Your task to perform on an android device: turn off picture-in-picture Image 0: 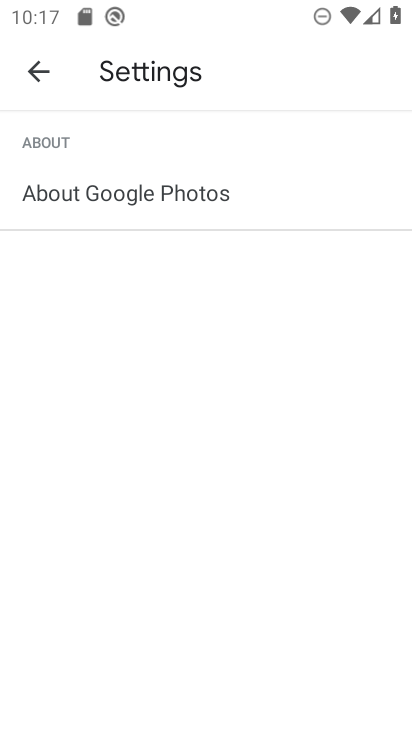
Step 0: press home button
Your task to perform on an android device: turn off picture-in-picture Image 1: 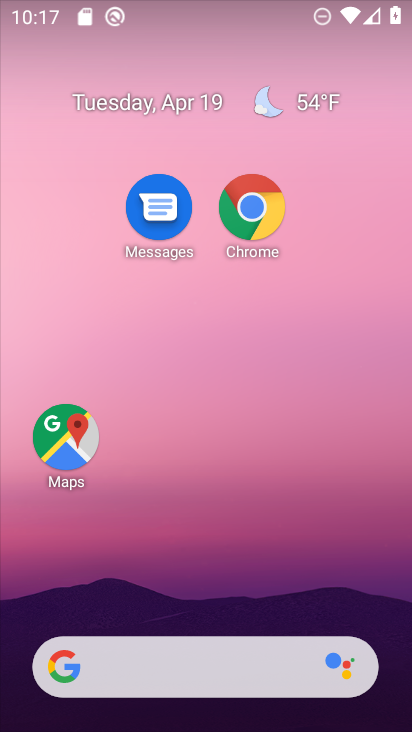
Step 1: click (242, 217)
Your task to perform on an android device: turn off picture-in-picture Image 2: 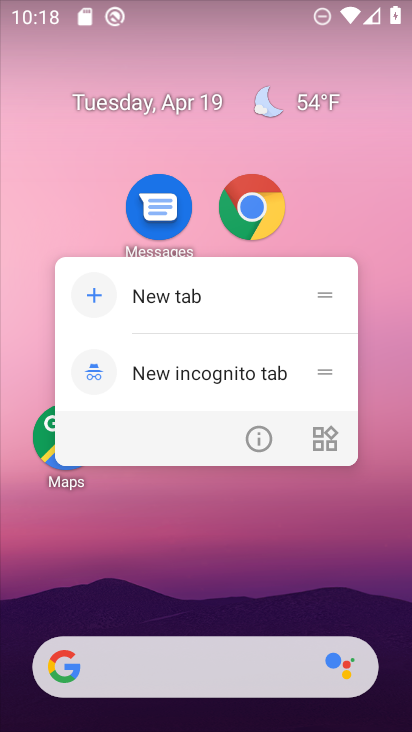
Step 2: click (259, 438)
Your task to perform on an android device: turn off picture-in-picture Image 3: 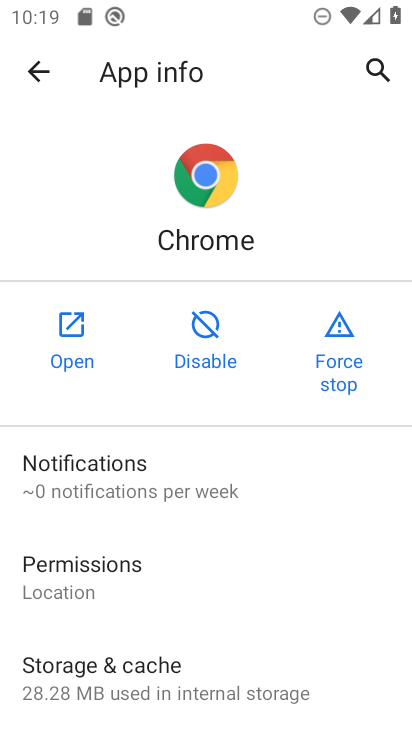
Step 3: drag from (198, 696) to (198, 383)
Your task to perform on an android device: turn off picture-in-picture Image 4: 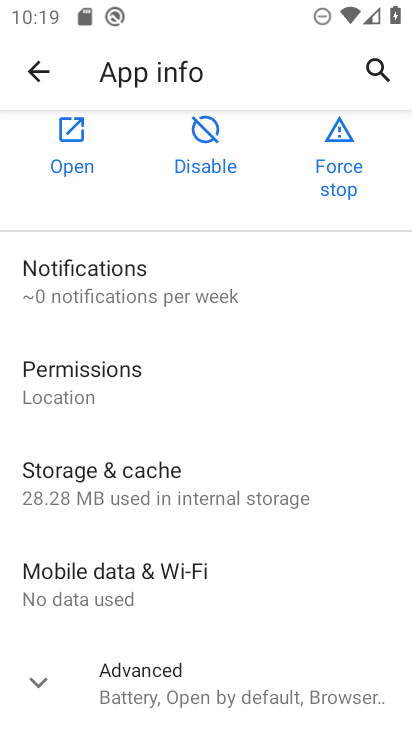
Step 4: click (173, 687)
Your task to perform on an android device: turn off picture-in-picture Image 5: 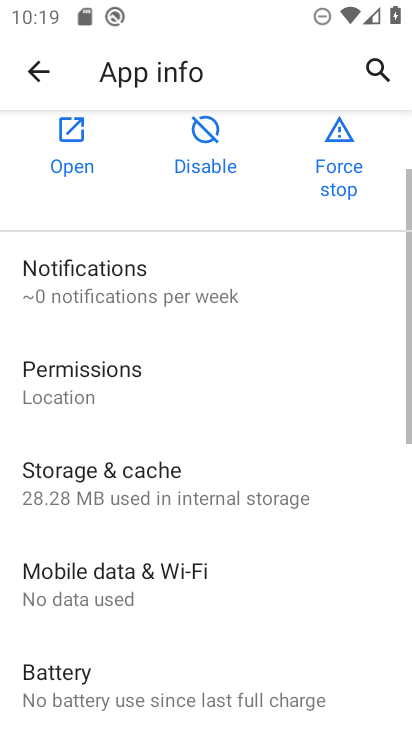
Step 5: drag from (213, 707) to (213, 370)
Your task to perform on an android device: turn off picture-in-picture Image 6: 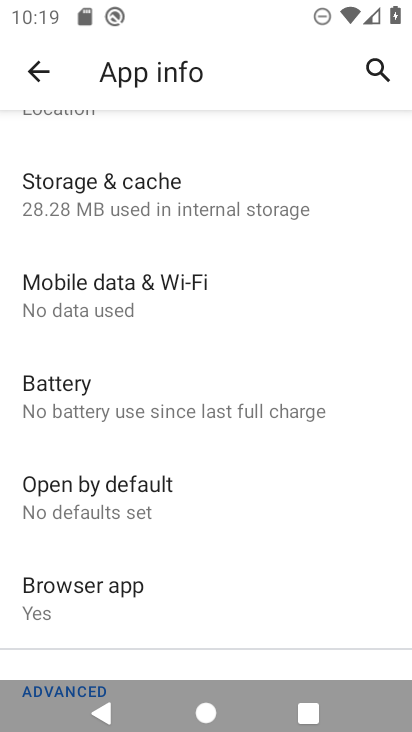
Step 6: drag from (241, 640) to (203, 320)
Your task to perform on an android device: turn off picture-in-picture Image 7: 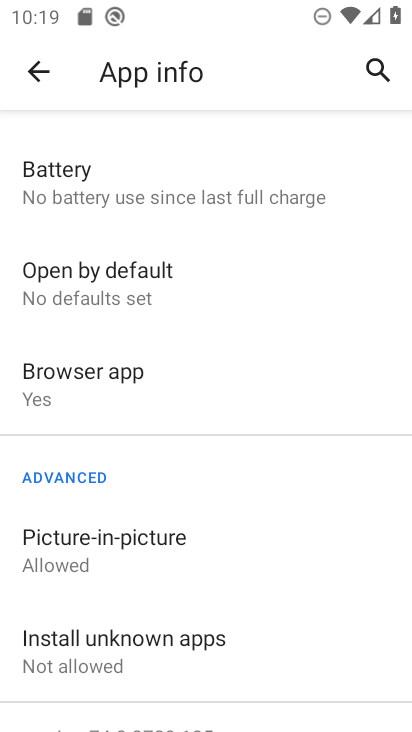
Step 7: click (83, 545)
Your task to perform on an android device: turn off picture-in-picture Image 8: 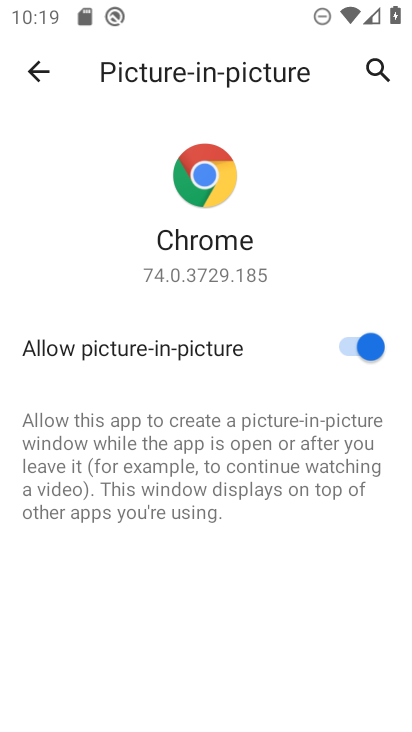
Step 8: click (347, 349)
Your task to perform on an android device: turn off picture-in-picture Image 9: 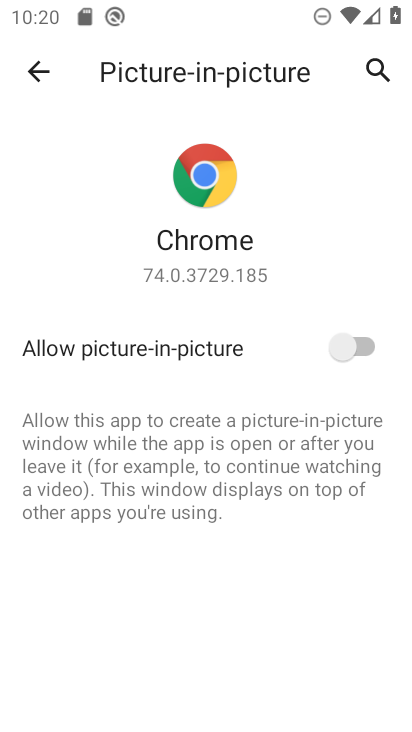
Step 9: task complete